Your task to perform on an android device: change notifications settings Image 0: 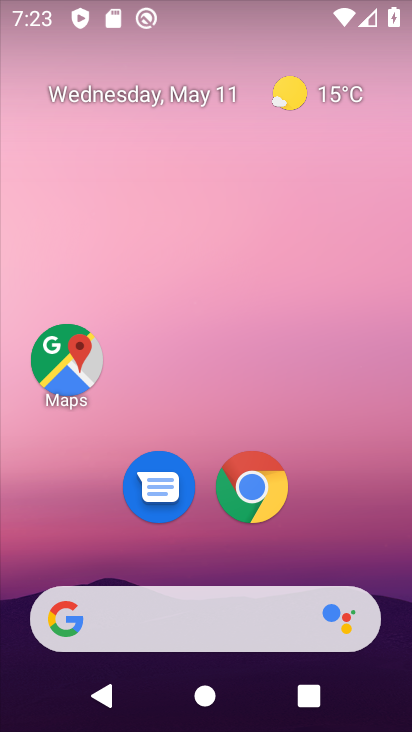
Step 0: drag from (320, 578) to (230, 251)
Your task to perform on an android device: change notifications settings Image 1: 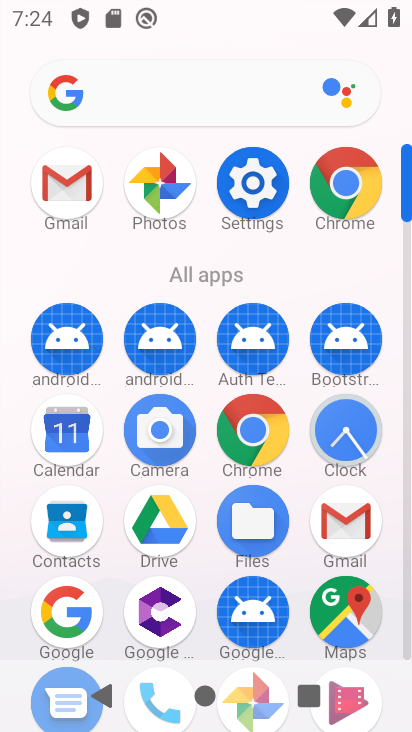
Step 1: click (243, 195)
Your task to perform on an android device: change notifications settings Image 2: 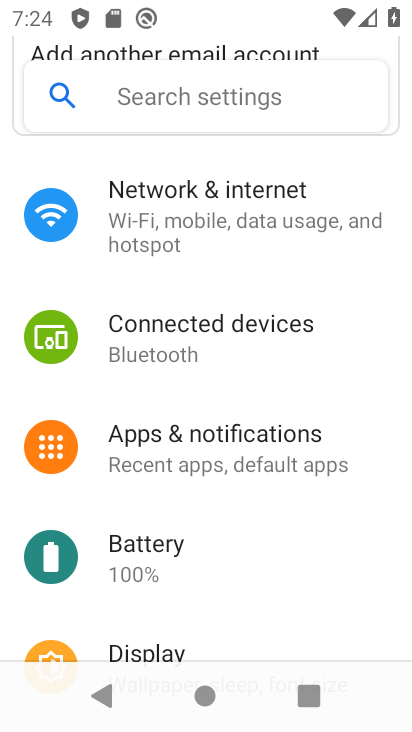
Step 2: click (144, 97)
Your task to perform on an android device: change notifications settings Image 3: 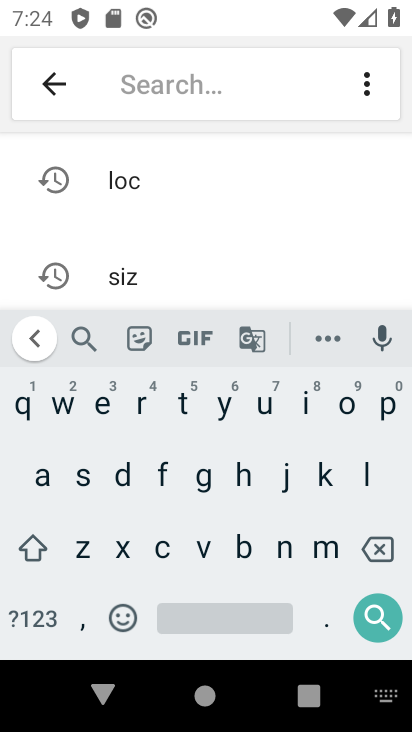
Step 3: click (281, 555)
Your task to perform on an android device: change notifications settings Image 4: 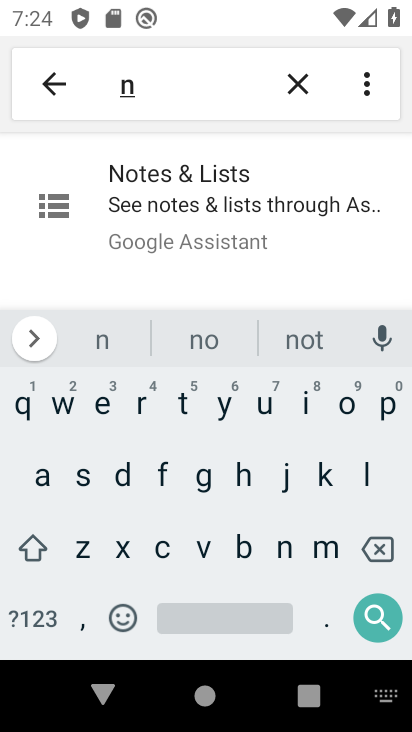
Step 4: click (349, 406)
Your task to perform on an android device: change notifications settings Image 5: 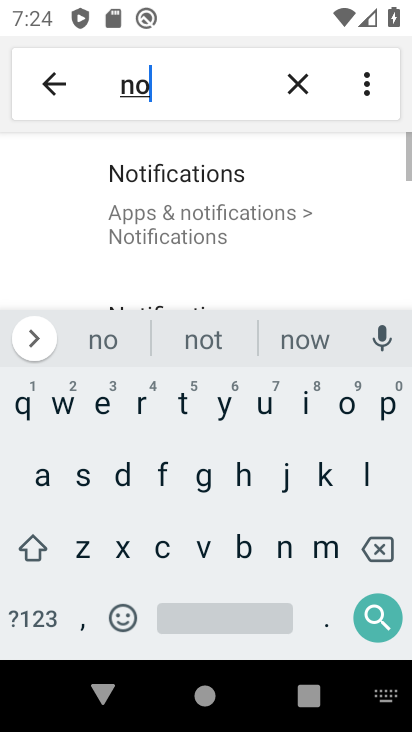
Step 5: click (210, 222)
Your task to perform on an android device: change notifications settings Image 6: 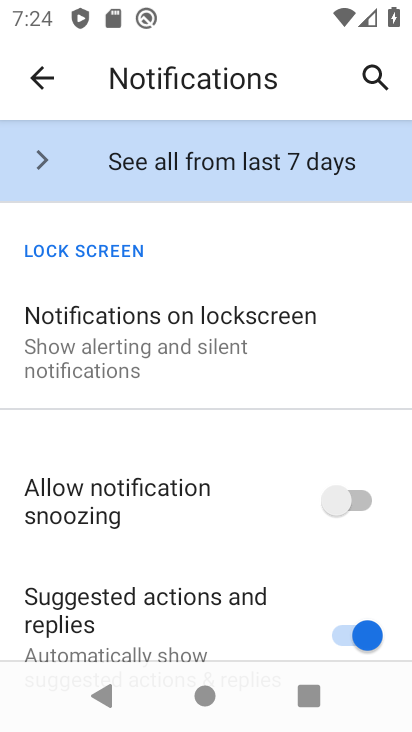
Step 6: click (151, 345)
Your task to perform on an android device: change notifications settings Image 7: 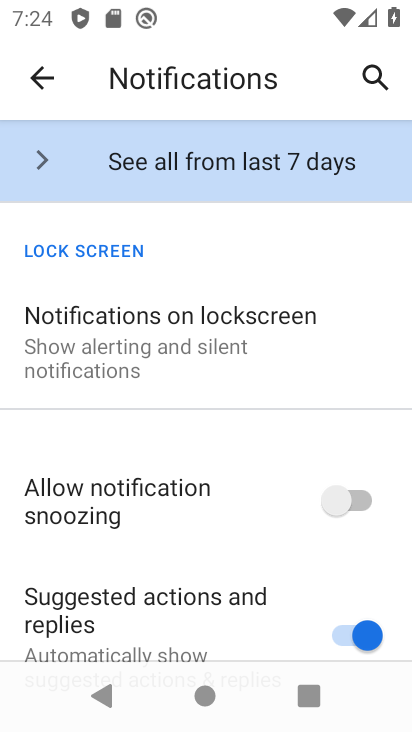
Step 7: click (110, 353)
Your task to perform on an android device: change notifications settings Image 8: 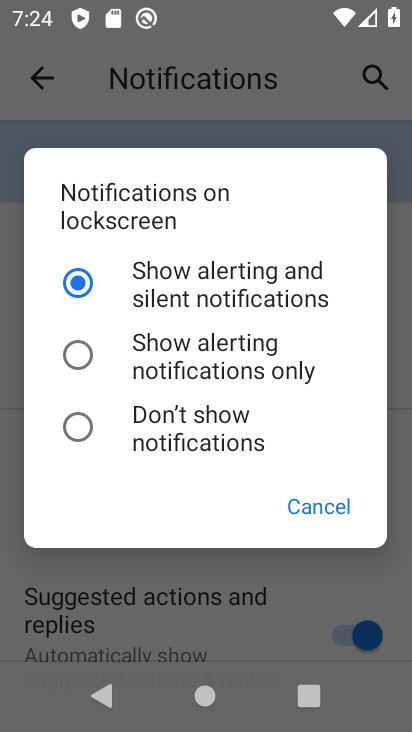
Step 8: click (168, 357)
Your task to perform on an android device: change notifications settings Image 9: 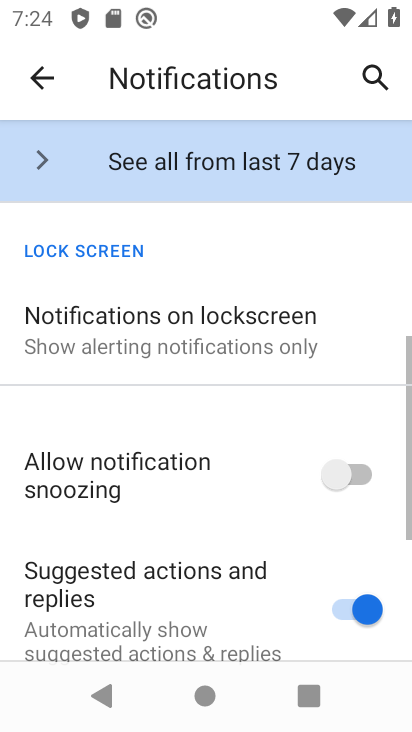
Step 9: task complete